Your task to perform on an android device: toggle priority inbox in the gmail app Image 0: 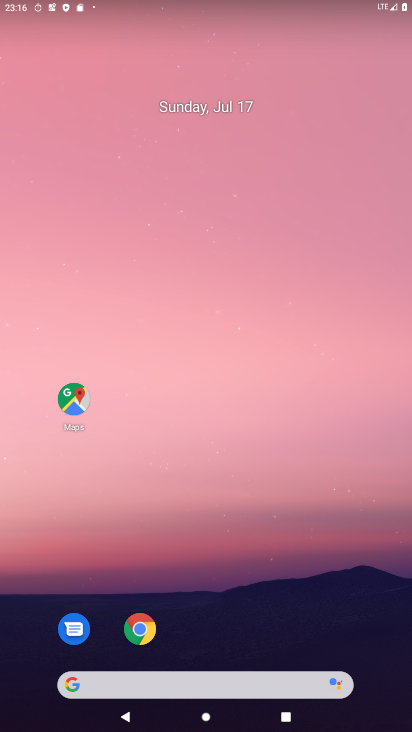
Step 0: drag from (234, 719) to (227, 46)
Your task to perform on an android device: toggle priority inbox in the gmail app Image 1: 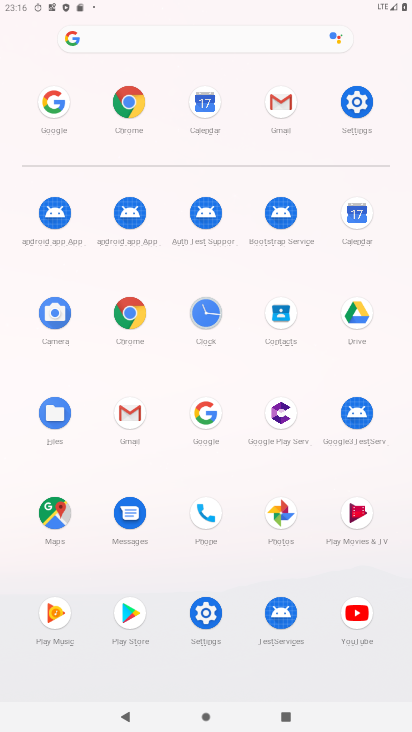
Step 1: click (126, 408)
Your task to perform on an android device: toggle priority inbox in the gmail app Image 2: 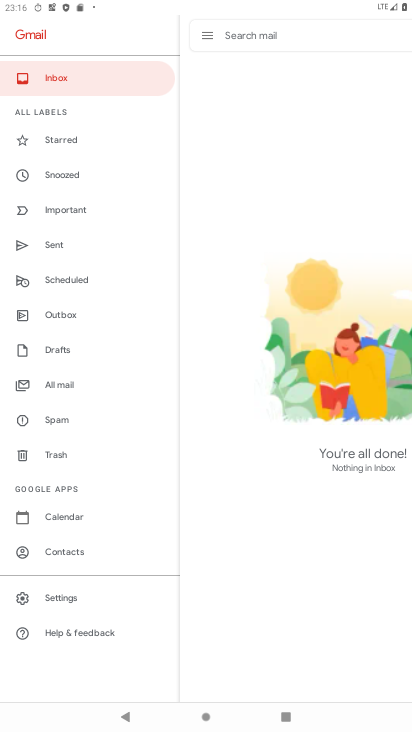
Step 2: click (61, 591)
Your task to perform on an android device: toggle priority inbox in the gmail app Image 3: 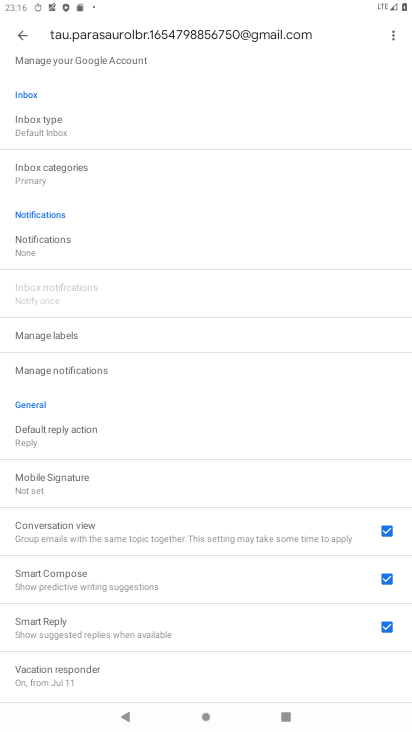
Step 3: click (38, 131)
Your task to perform on an android device: toggle priority inbox in the gmail app Image 4: 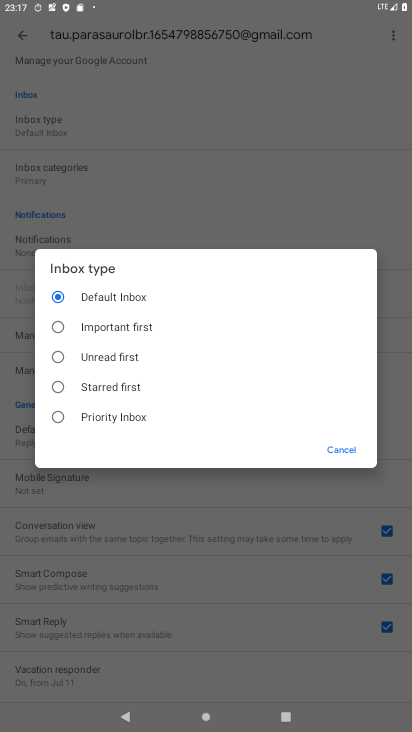
Step 4: click (60, 414)
Your task to perform on an android device: toggle priority inbox in the gmail app Image 5: 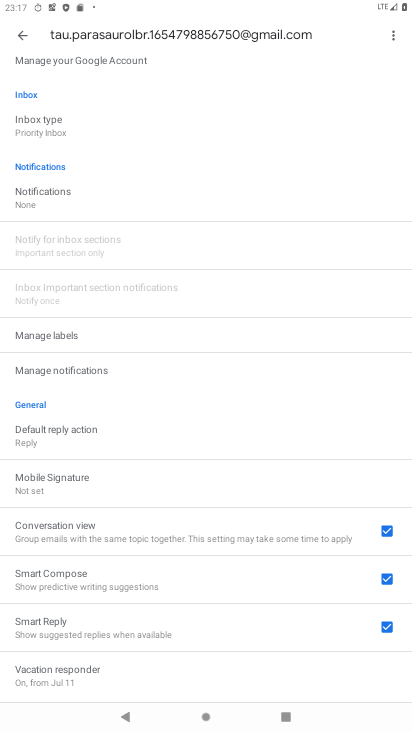
Step 5: task complete